Your task to perform on an android device: check data usage Image 0: 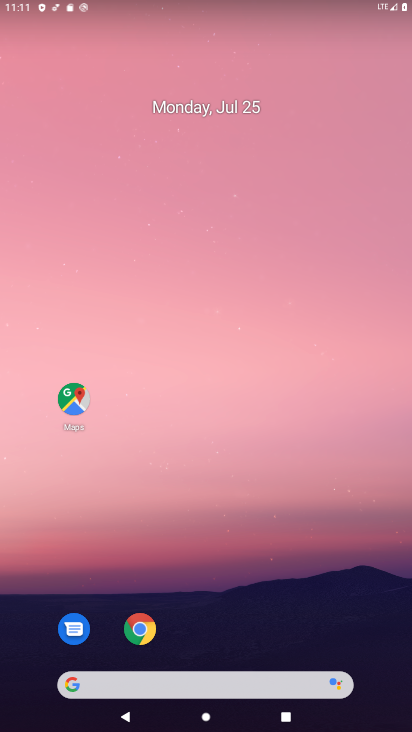
Step 0: drag from (196, 621) to (162, 90)
Your task to perform on an android device: check data usage Image 1: 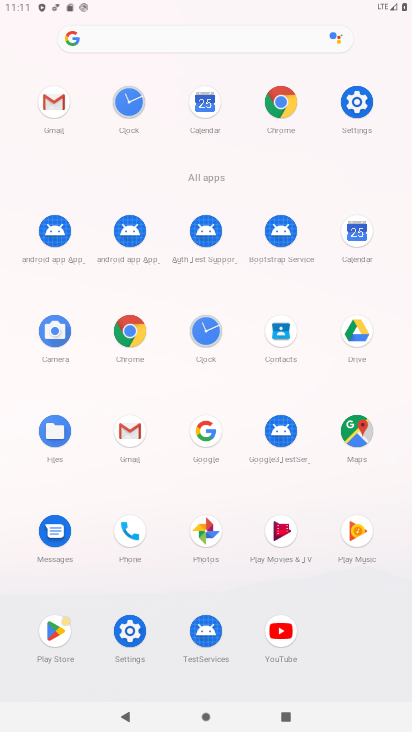
Step 1: click (349, 99)
Your task to perform on an android device: check data usage Image 2: 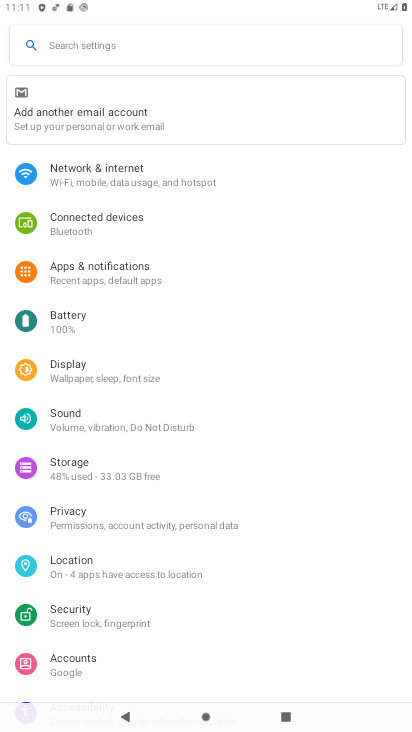
Step 2: click (158, 174)
Your task to perform on an android device: check data usage Image 3: 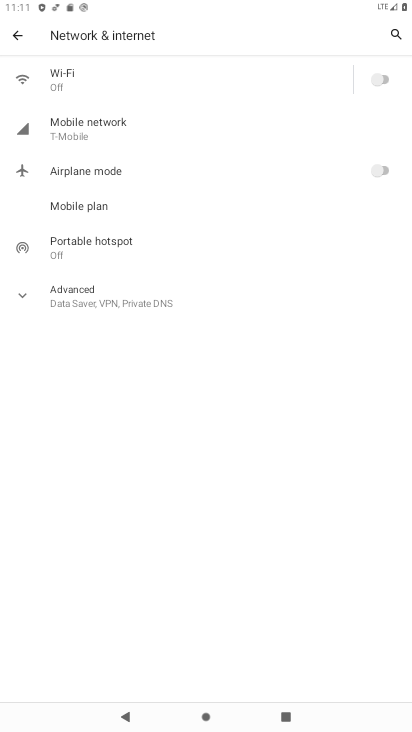
Step 3: click (107, 135)
Your task to perform on an android device: check data usage Image 4: 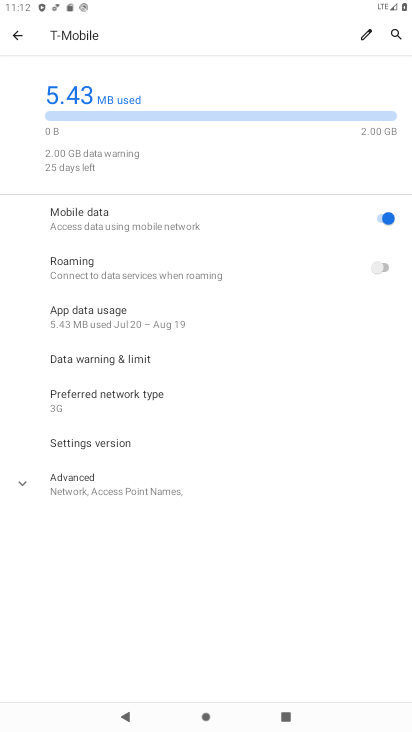
Step 4: click (153, 323)
Your task to perform on an android device: check data usage Image 5: 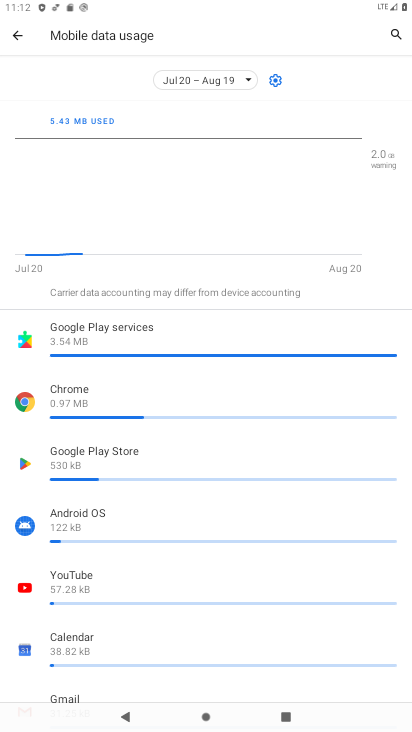
Step 5: task complete